Your task to perform on an android device: check the backup settings in the google photos Image 0: 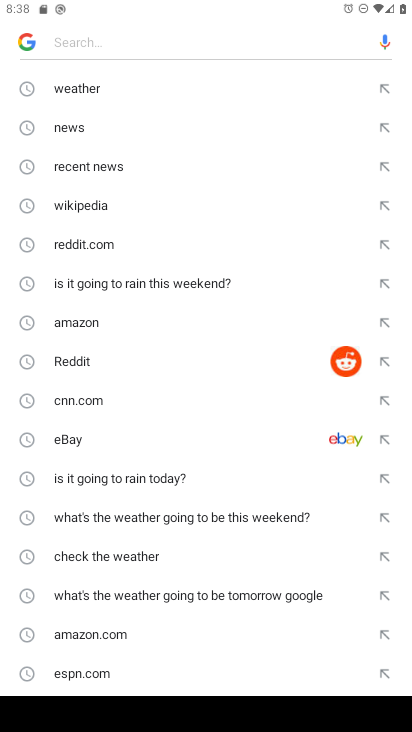
Step 0: press home button
Your task to perform on an android device: check the backup settings in the google photos Image 1: 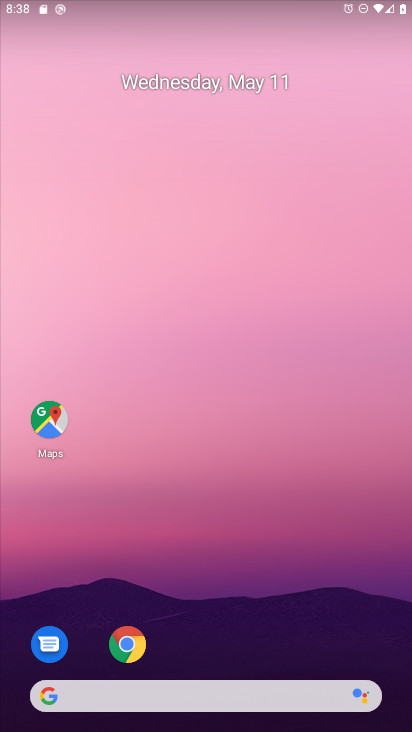
Step 1: drag from (249, 548) to (146, 20)
Your task to perform on an android device: check the backup settings in the google photos Image 2: 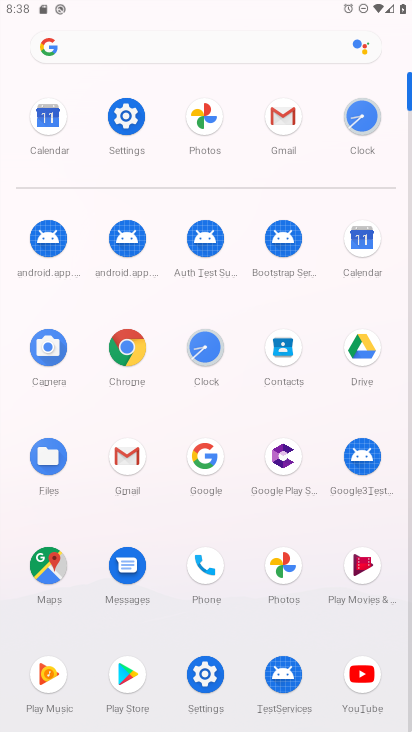
Step 2: click (202, 116)
Your task to perform on an android device: check the backup settings in the google photos Image 3: 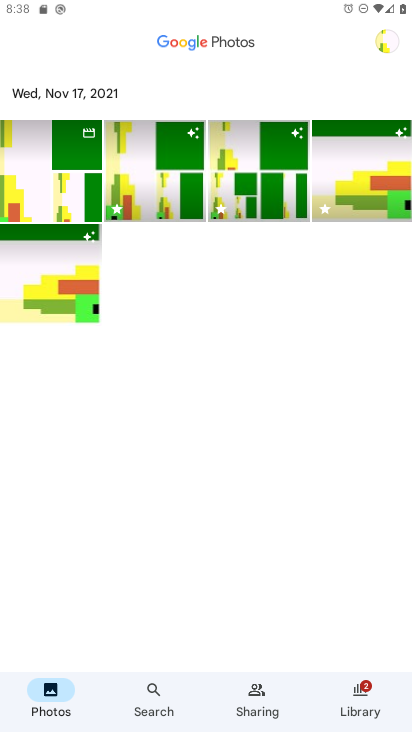
Step 3: click (383, 41)
Your task to perform on an android device: check the backup settings in the google photos Image 4: 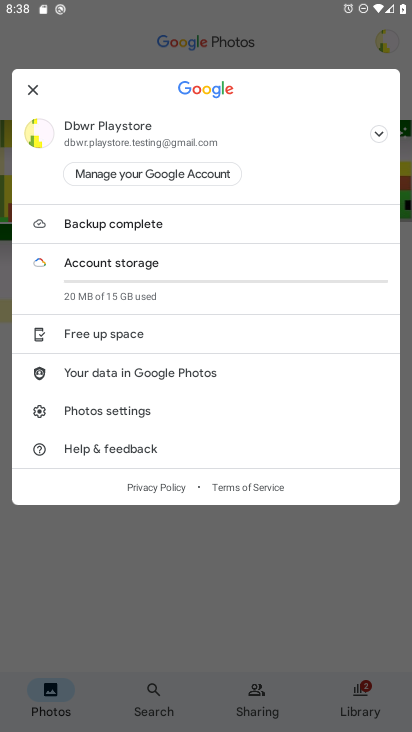
Step 4: click (124, 405)
Your task to perform on an android device: check the backup settings in the google photos Image 5: 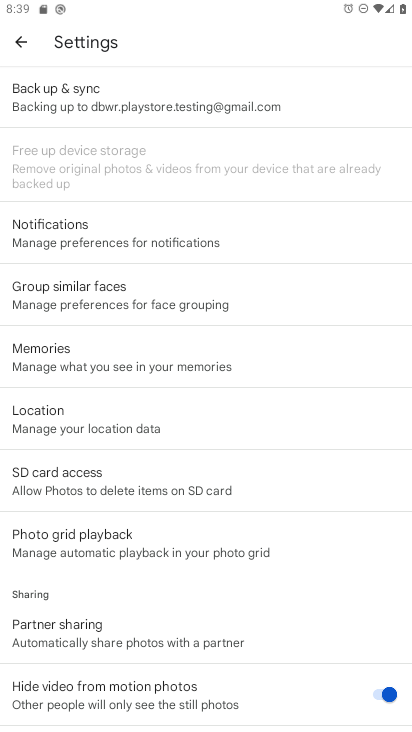
Step 5: click (64, 93)
Your task to perform on an android device: check the backup settings in the google photos Image 6: 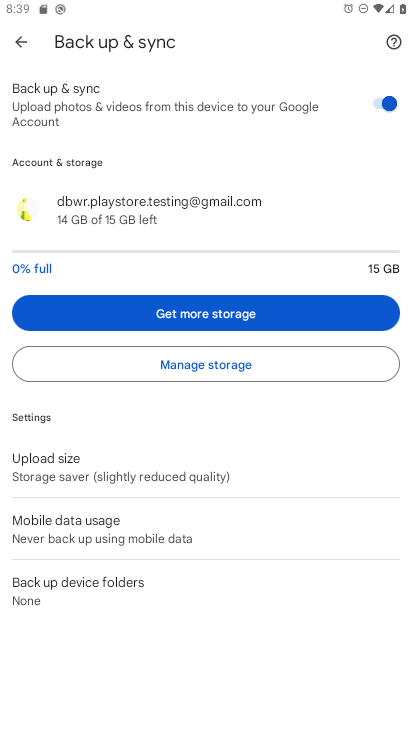
Step 6: task complete